Your task to perform on an android device: Open Reddit.com Image 0: 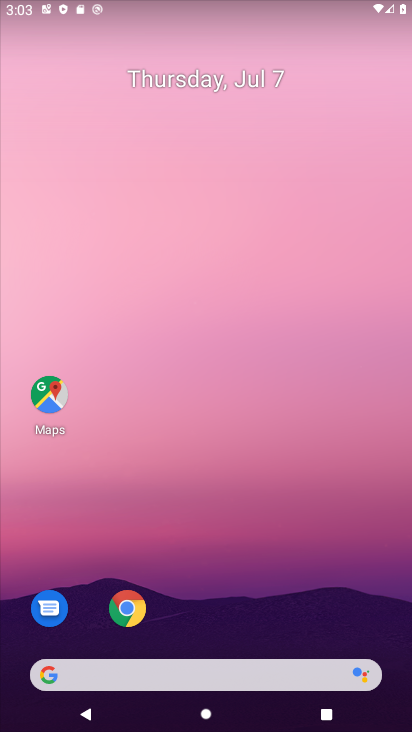
Step 0: click (127, 611)
Your task to perform on an android device: Open Reddit.com Image 1: 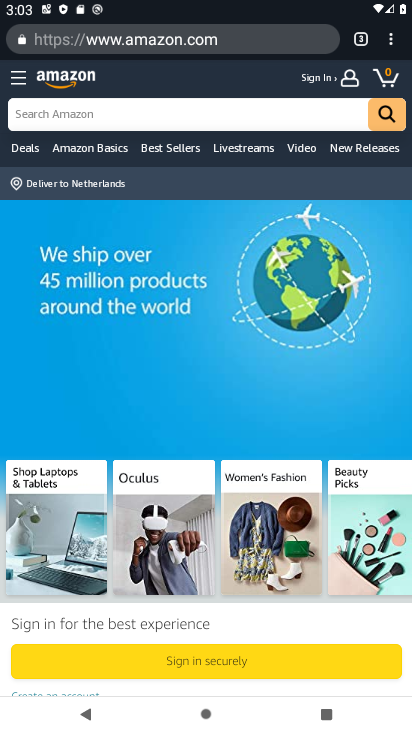
Step 1: click (242, 40)
Your task to perform on an android device: Open Reddit.com Image 2: 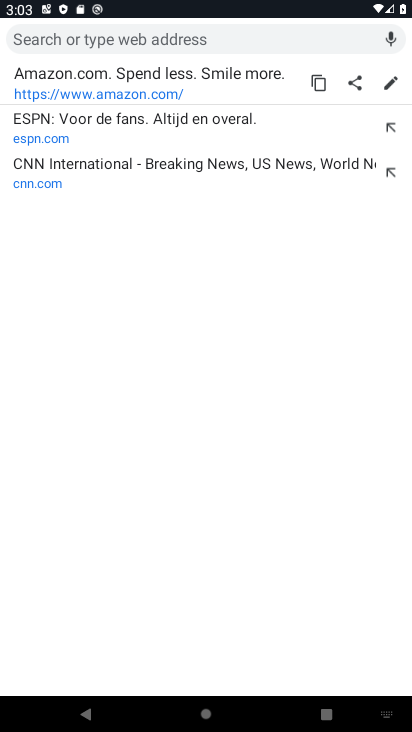
Step 2: type "Reddit.com"
Your task to perform on an android device: Open Reddit.com Image 3: 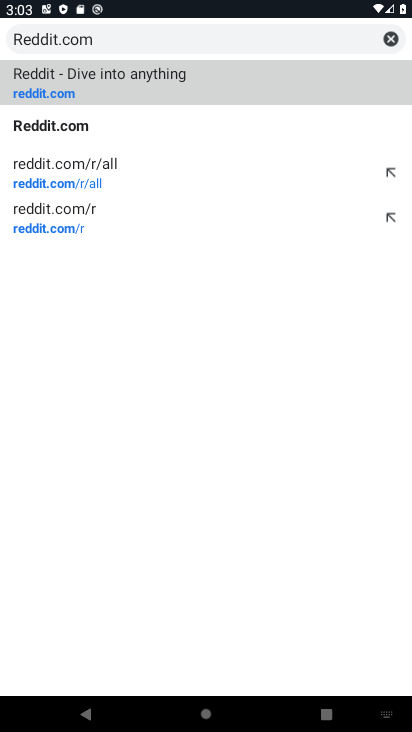
Step 3: click (67, 84)
Your task to perform on an android device: Open Reddit.com Image 4: 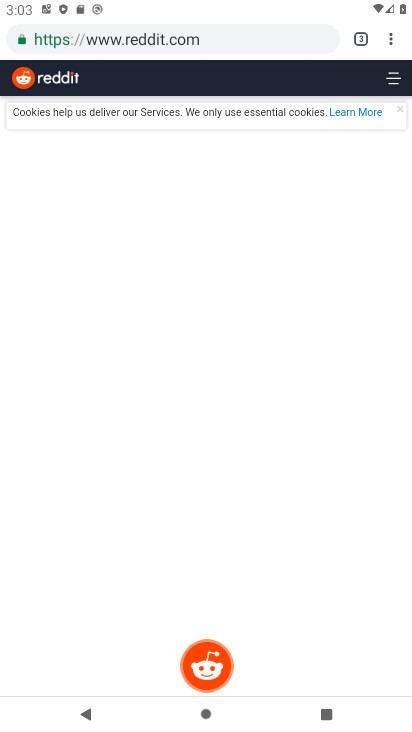
Step 4: task complete